Your task to perform on an android device: What's the weather today? Image 0: 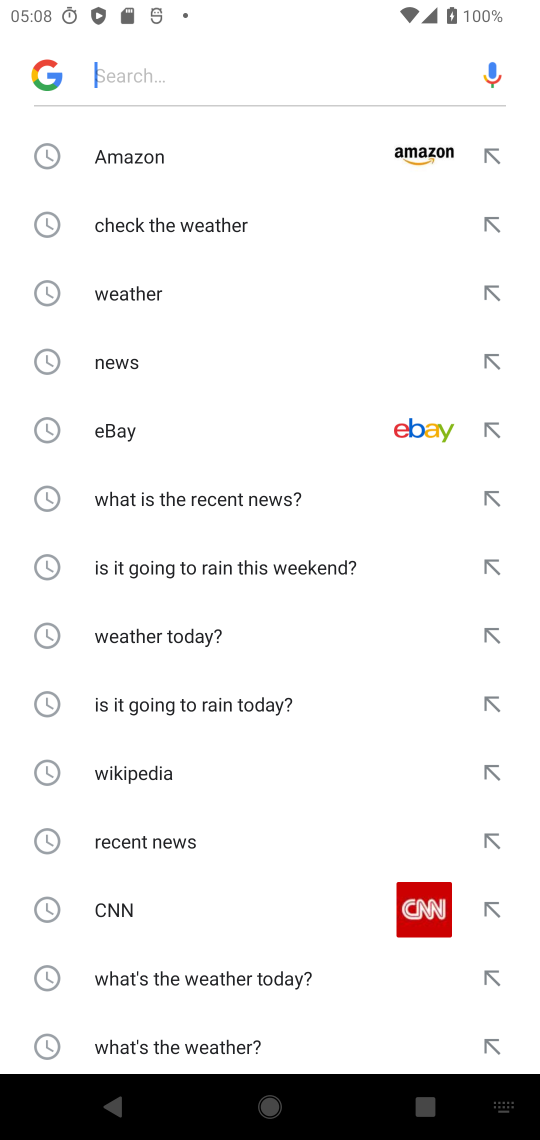
Step 0: press home button
Your task to perform on an android device: What's the weather today? Image 1: 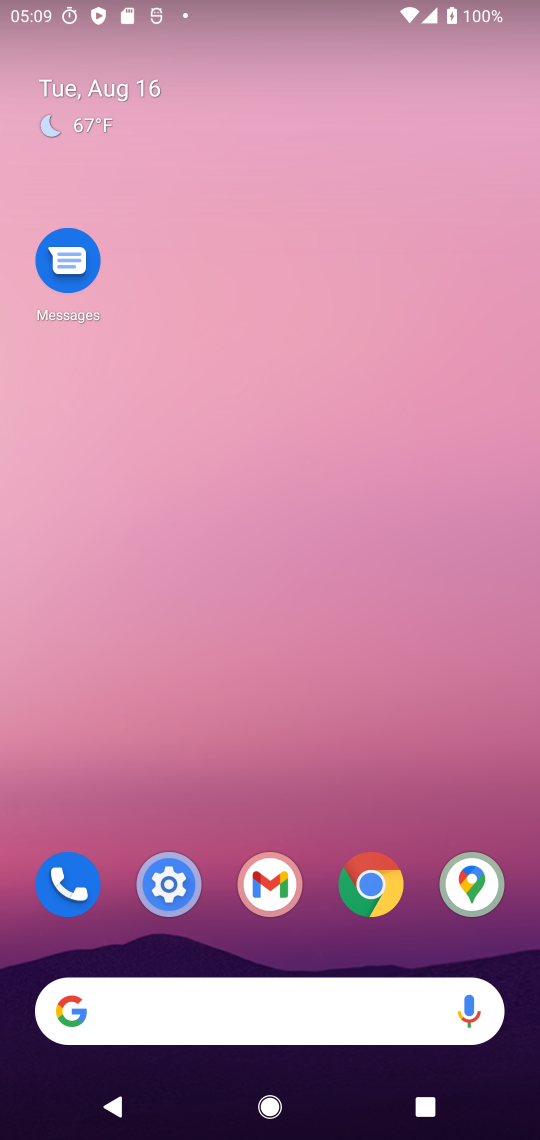
Step 1: click (110, 989)
Your task to perform on an android device: What's the weather today? Image 2: 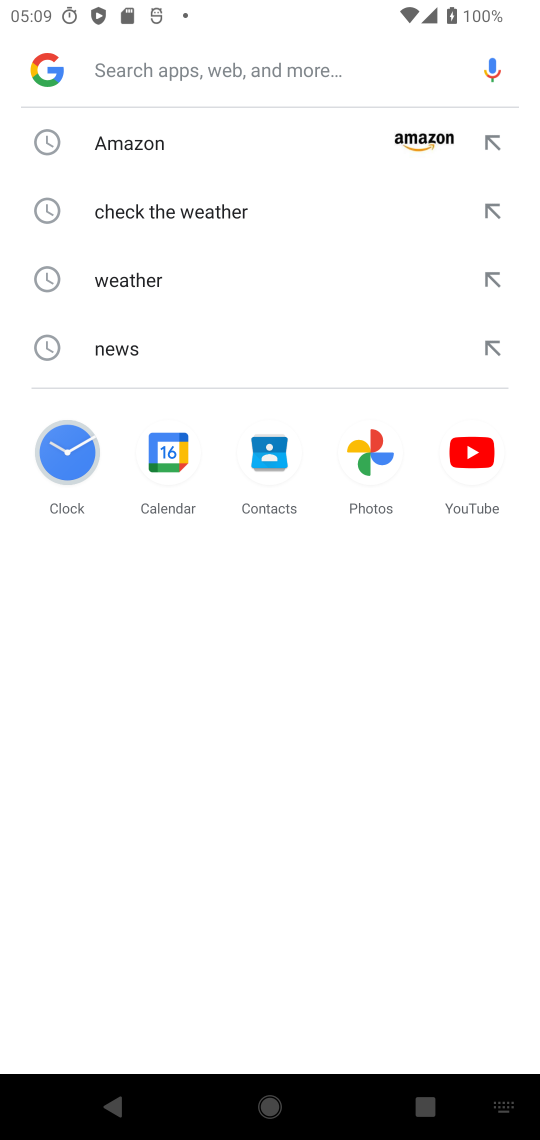
Step 2: type "What's the weather today?"
Your task to perform on an android device: What's the weather today? Image 3: 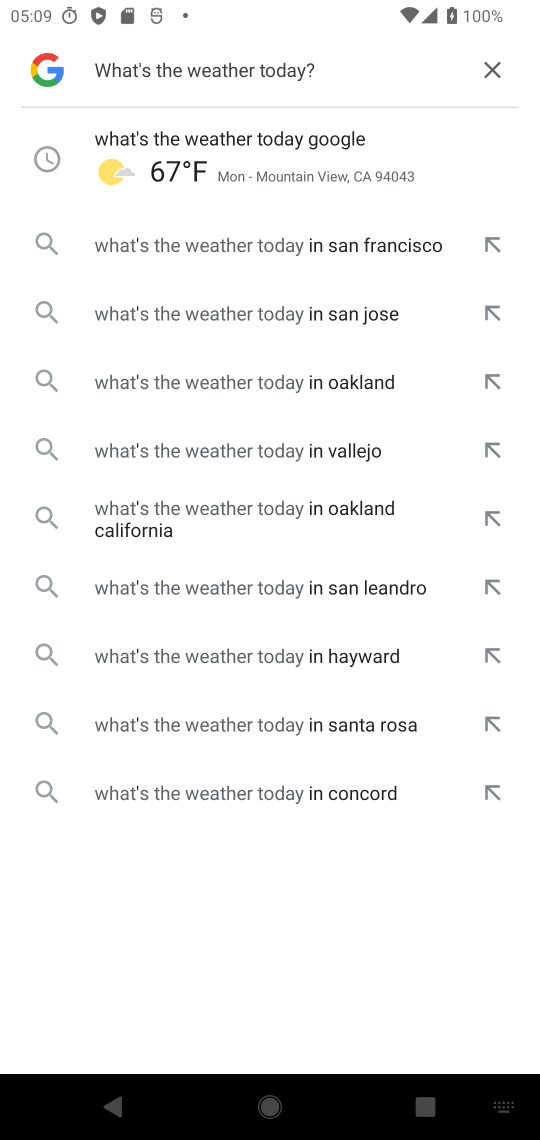
Step 3: task complete